Your task to perform on an android device: Open privacy settings Image 0: 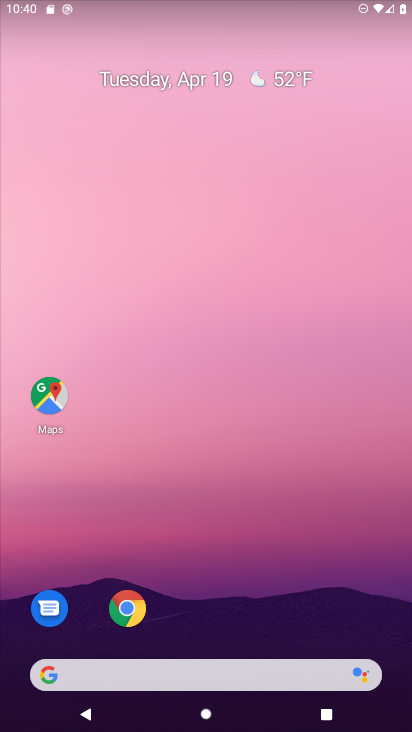
Step 0: drag from (321, 515) to (393, 154)
Your task to perform on an android device: Open privacy settings Image 1: 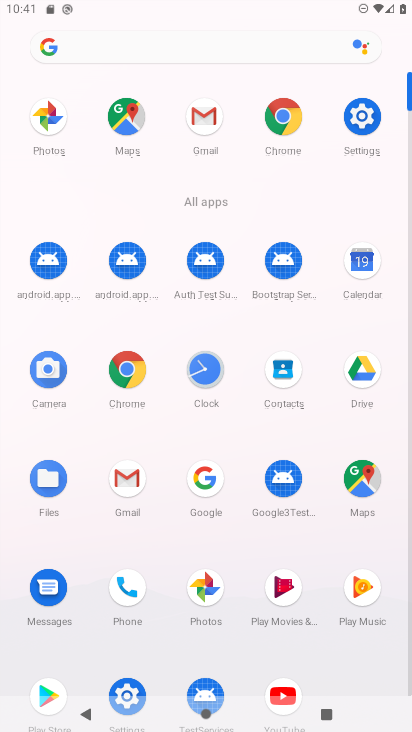
Step 1: click (405, 351)
Your task to perform on an android device: Open privacy settings Image 2: 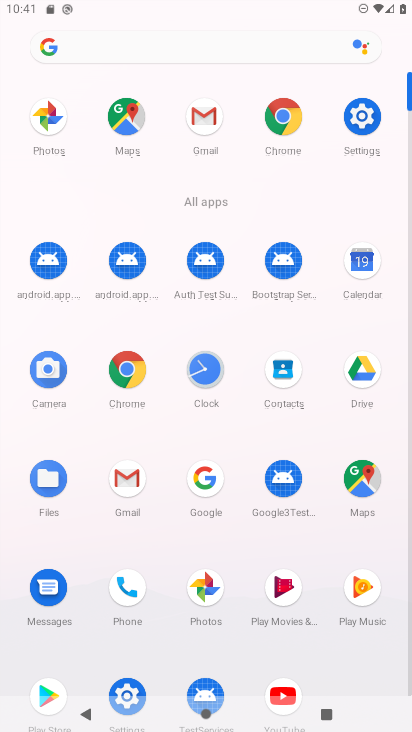
Step 2: drag from (377, 680) to (371, 452)
Your task to perform on an android device: Open privacy settings Image 3: 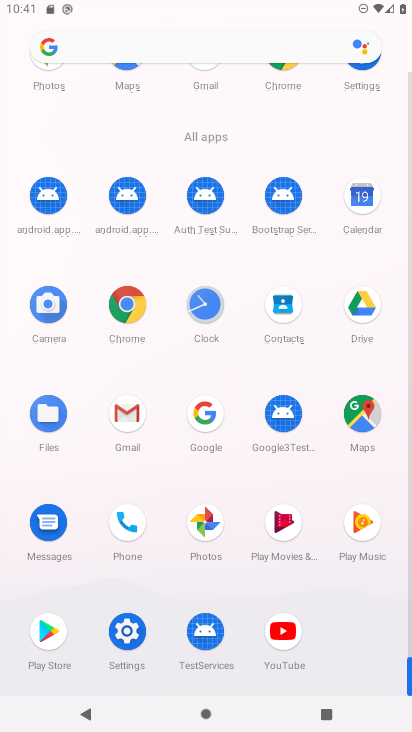
Step 3: click (135, 631)
Your task to perform on an android device: Open privacy settings Image 4: 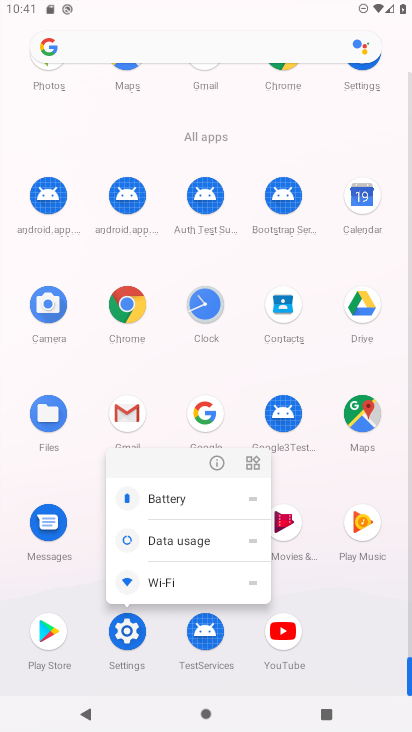
Step 4: click (135, 631)
Your task to perform on an android device: Open privacy settings Image 5: 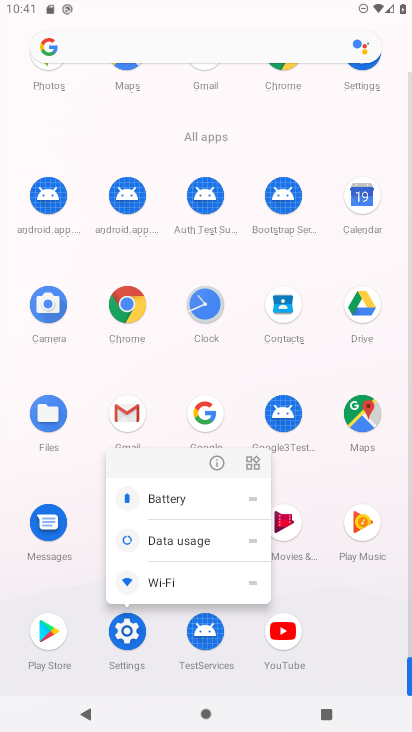
Step 5: click (135, 631)
Your task to perform on an android device: Open privacy settings Image 6: 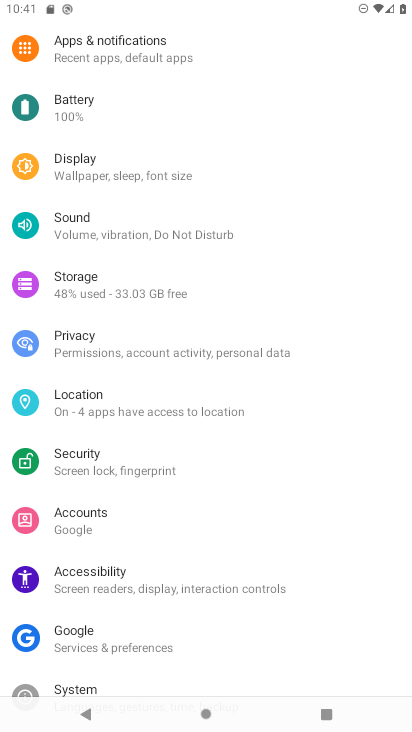
Step 6: click (67, 359)
Your task to perform on an android device: Open privacy settings Image 7: 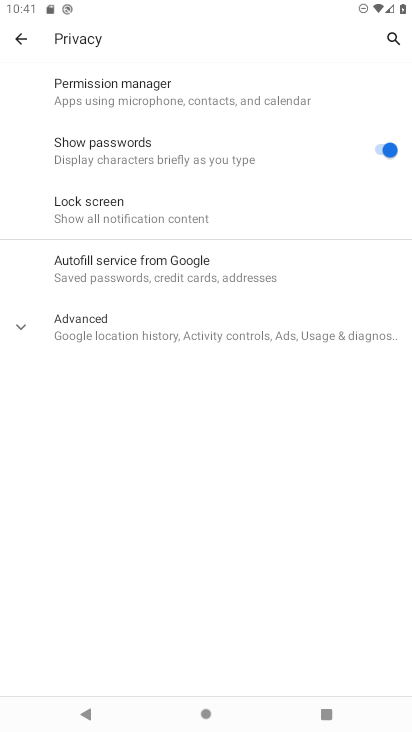
Step 7: task complete